Your task to perform on an android device: turn notification dots off Image 0: 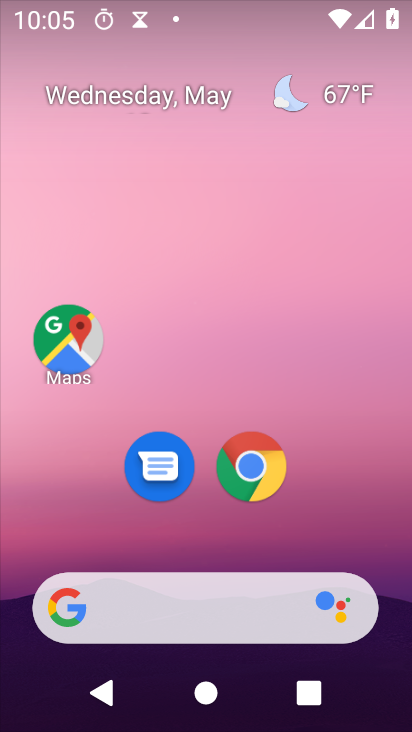
Step 0: drag from (304, 545) to (265, 173)
Your task to perform on an android device: turn notification dots off Image 1: 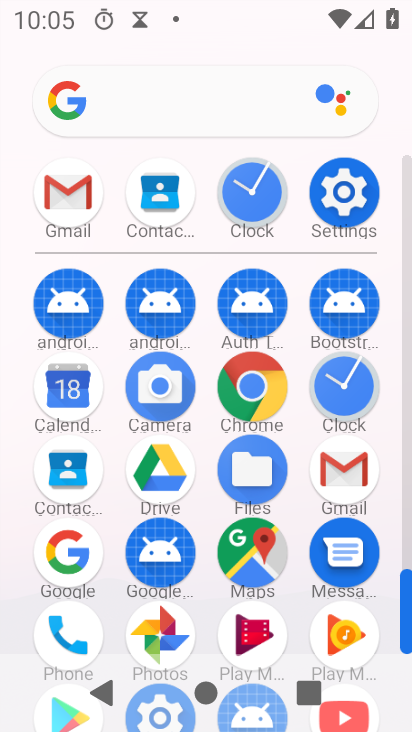
Step 1: drag from (266, 485) to (230, 58)
Your task to perform on an android device: turn notification dots off Image 2: 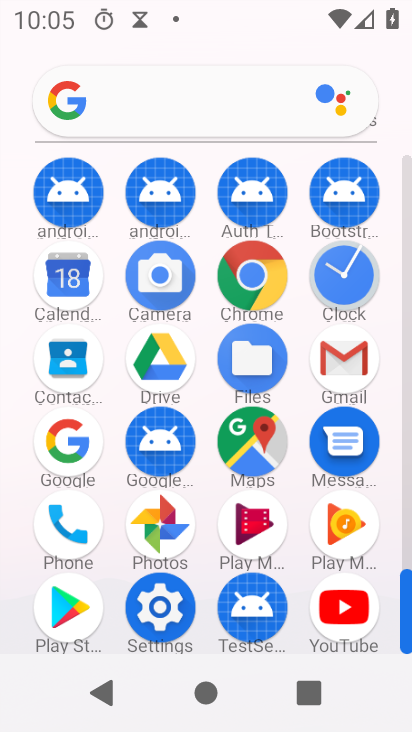
Step 2: drag from (146, 422) to (98, 249)
Your task to perform on an android device: turn notification dots off Image 3: 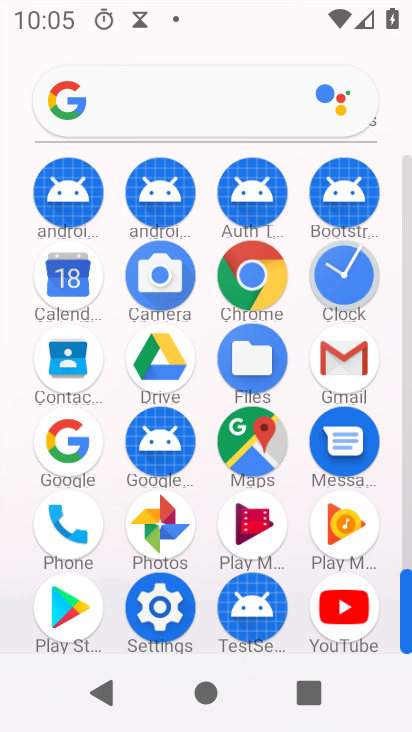
Step 3: click (152, 601)
Your task to perform on an android device: turn notification dots off Image 4: 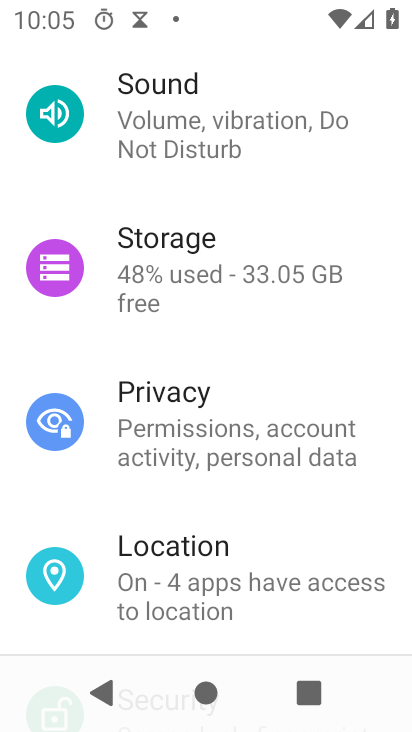
Step 4: drag from (232, 290) to (224, 456)
Your task to perform on an android device: turn notification dots off Image 5: 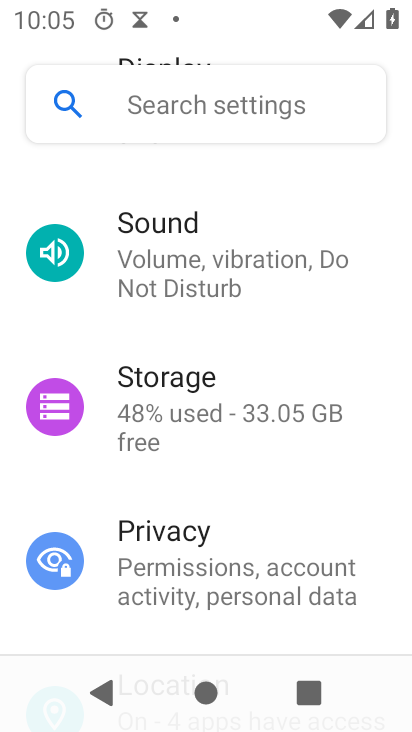
Step 5: drag from (204, 208) to (187, 434)
Your task to perform on an android device: turn notification dots off Image 6: 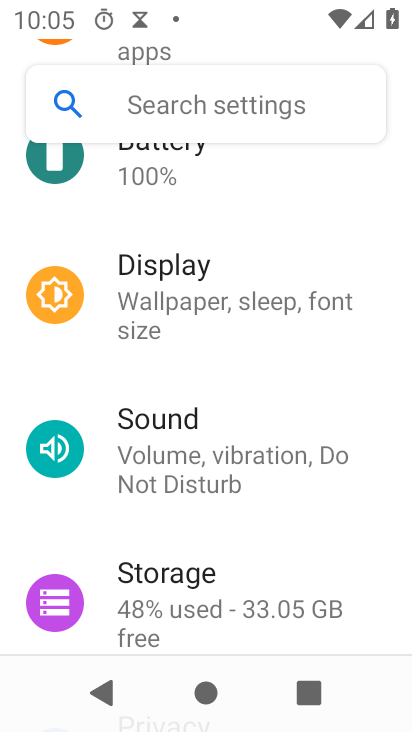
Step 6: drag from (158, 340) to (158, 479)
Your task to perform on an android device: turn notification dots off Image 7: 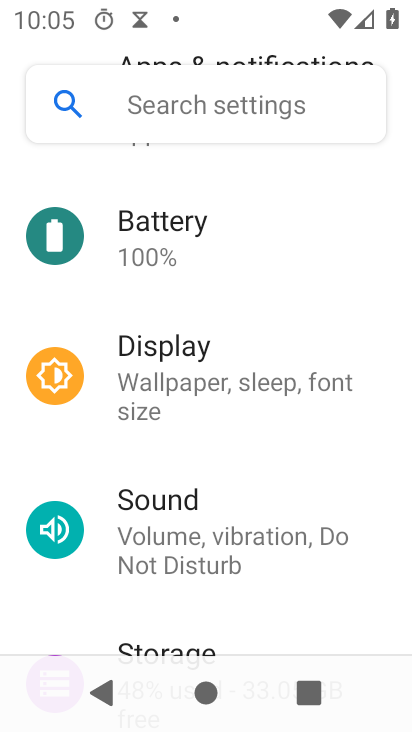
Step 7: drag from (191, 382) to (191, 468)
Your task to perform on an android device: turn notification dots off Image 8: 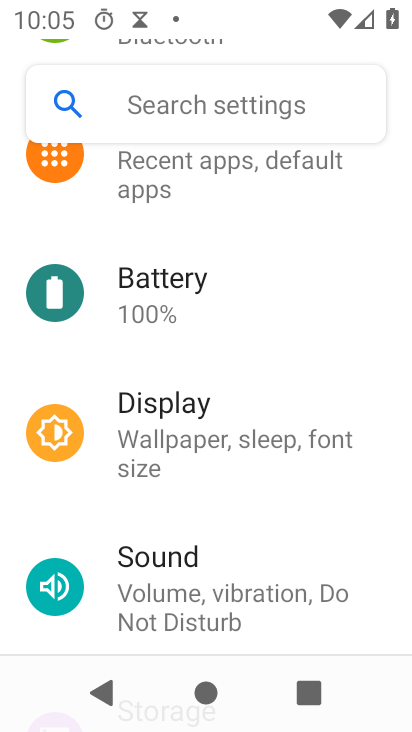
Step 8: click (133, 204)
Your task to perform on an android device: turn notification dots off Image 9: 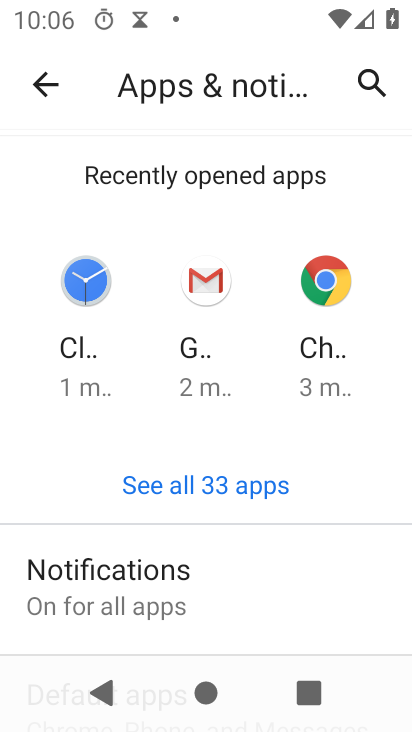
Step 9: drag from (164, 593) to (153, 267)
Your task to perform on an android device: turn notification dots off Image 10: 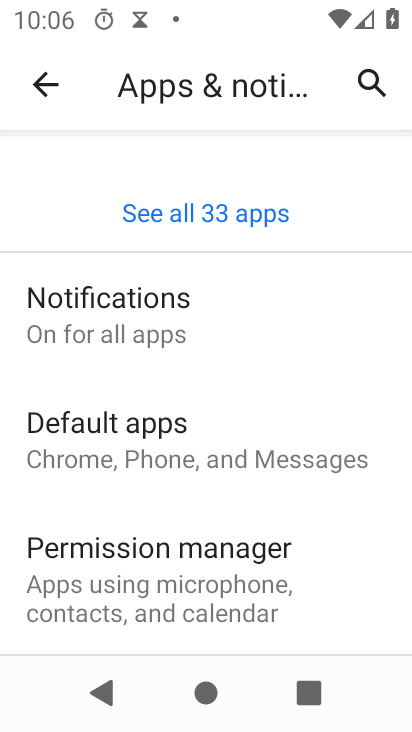
Step 10: drag from (141, 413) to (143, 150)
Your task to perform on an android device: turn notification dots off Image 11: 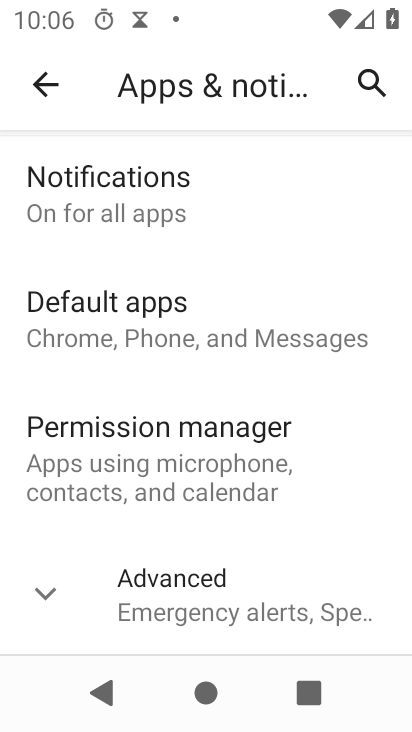
Step 11: click (173, 601)
Your task to perform on an android device: turn notification dots off Image 12: 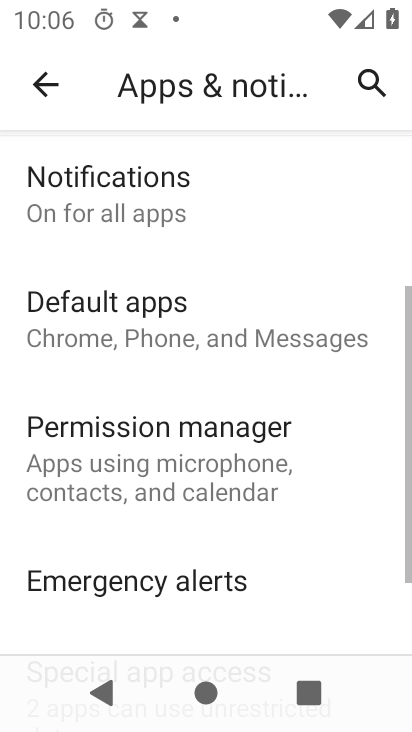
Step 12: drag from (173, 602) to (214, 313)
Your task to perform on an android device: turn notification dots off Image 13: 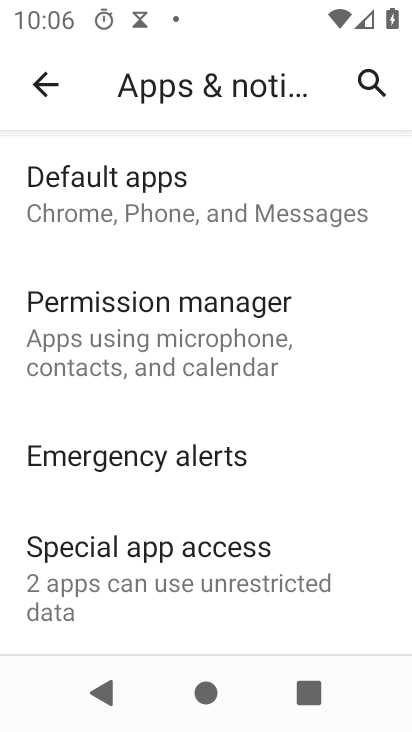
Step 13: drag from (201, 584) to (189, 267)
Your task to perform on an android device: turn notification dots off Image 14: 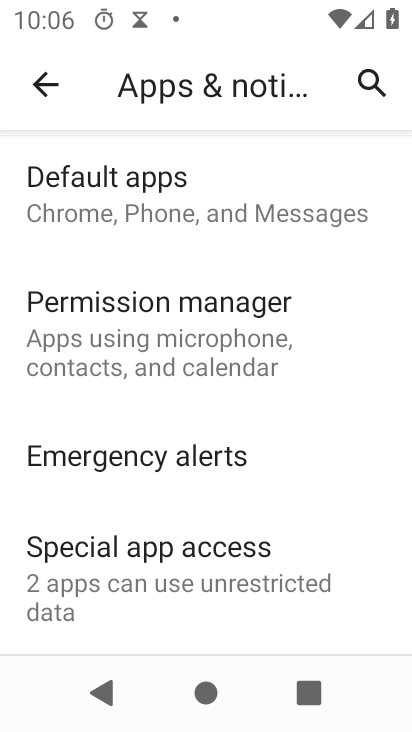
Step 14: drag from (140, 247) to (142, 500)
Your task to perform on an android device: turn notification dots off Image 15: 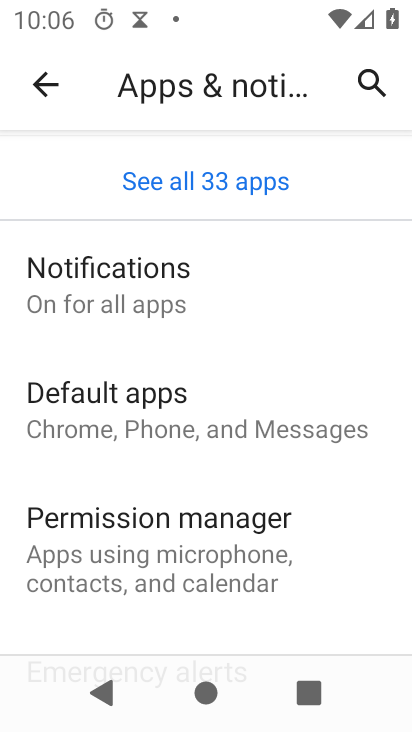
Step 15: click (98, 311)
Your task to perform on an android device: turn notification dots off Image 16: 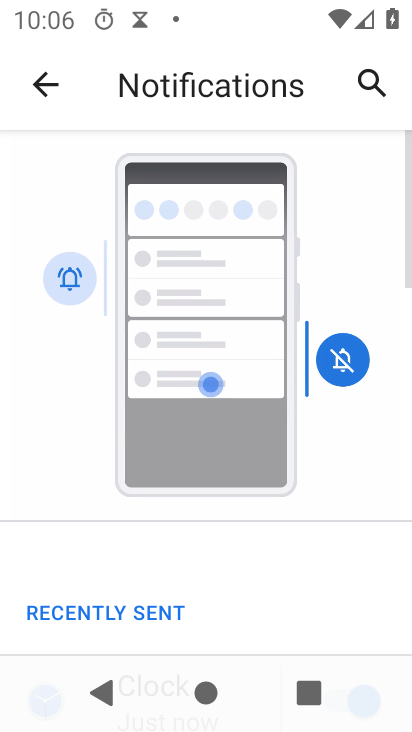
Step 16: drag from (187, 553) to (218, 175)
Your task to perform on an android device: turn notification dots off Image 17: 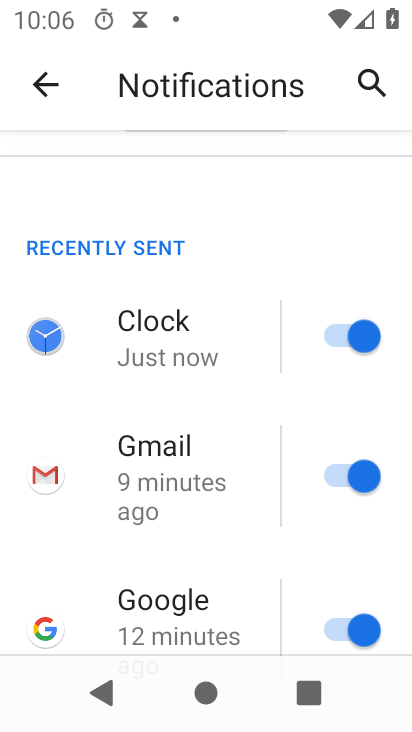
Step 17: drag from (210, 555) to (194, 178)
Your task to perform on an android device: turn notification dots off Image 18: 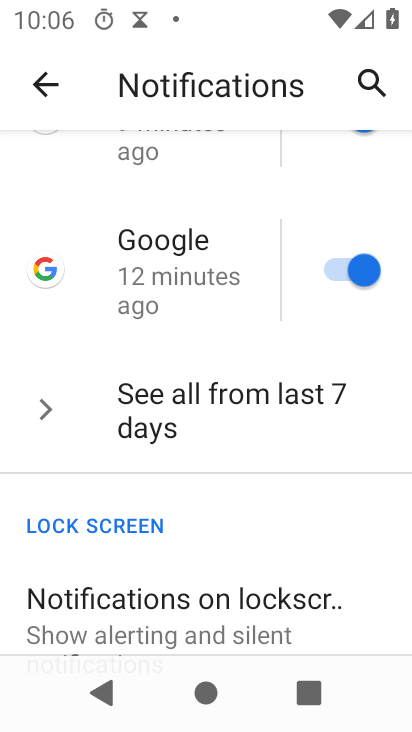
Step 18: drag from (73, 550) to (66, 416)
Your task to perform on an android device: turn notification dots off Image 19: 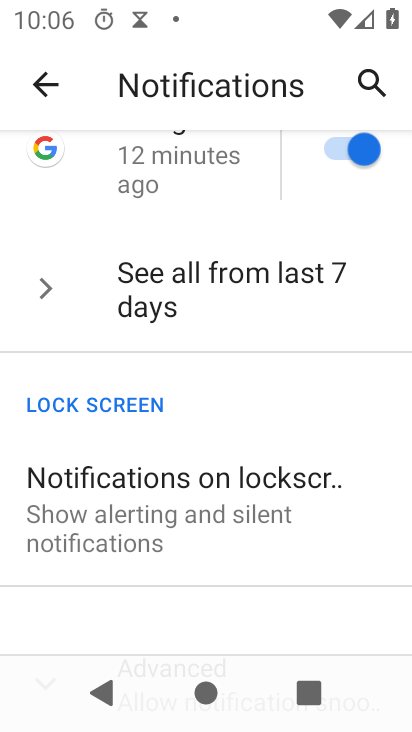
Step 19: drag from (117, 596) to (138, 359)
Your task to perform on an android device: turn notification dots off Image 20: 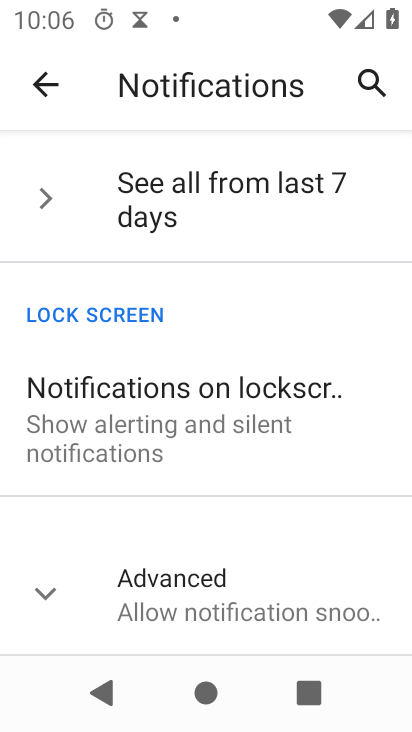
Step 20: click (194, 605)
Your task to perform on an android device: turn notification dots off Image 21: 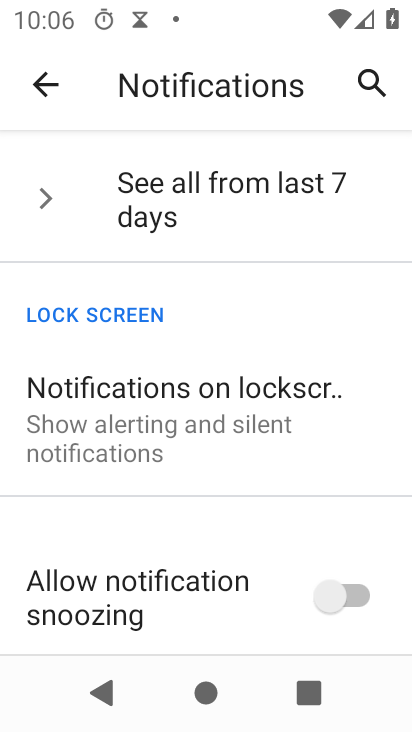
Step 21: task complete